Your task to perform on an android device: Go to CNN.com Image 0: 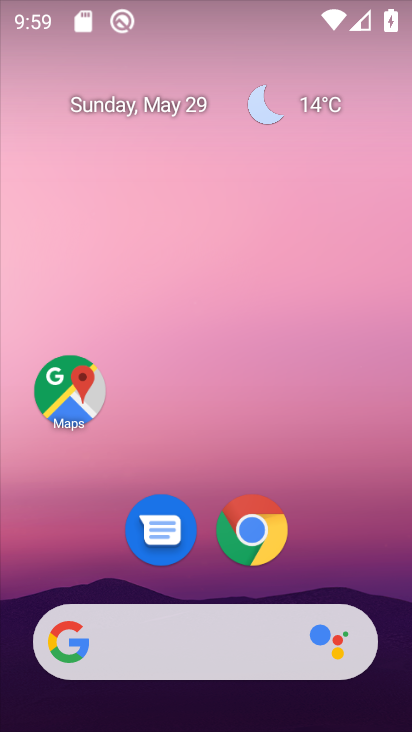
Step 0: click (234, 508)
Your task to perform on an android device: Go to CNN.com Image 1: 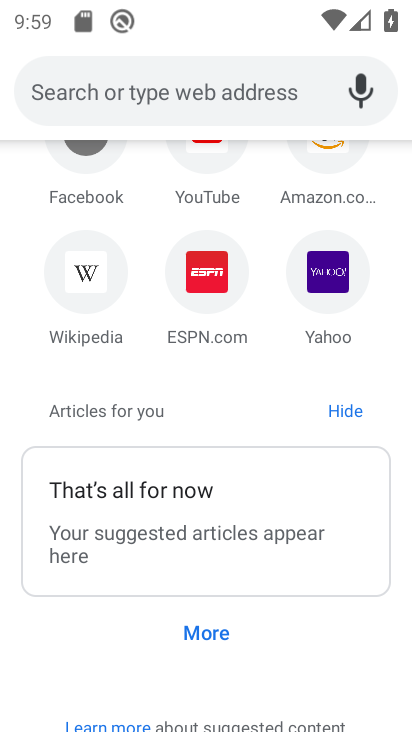
Step 1: click (224, 82)
Your task to perform on an android device: Go to CNN.com Image 2: 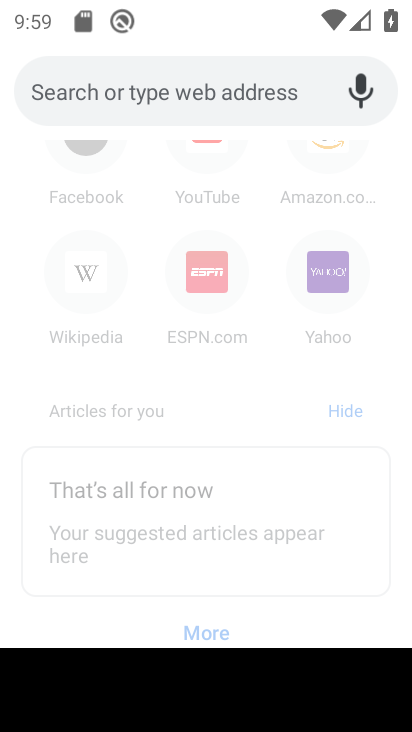
Step 2: type "cnn.com"
Your task to perform on an android device: Go to CNN.com Image 3: 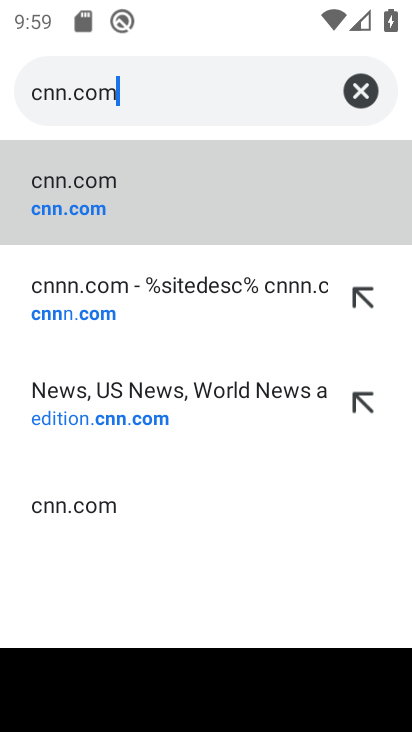
Step 3: click (101, 224)
Your task to perform on an android device: Go to CNN.com Image 4: 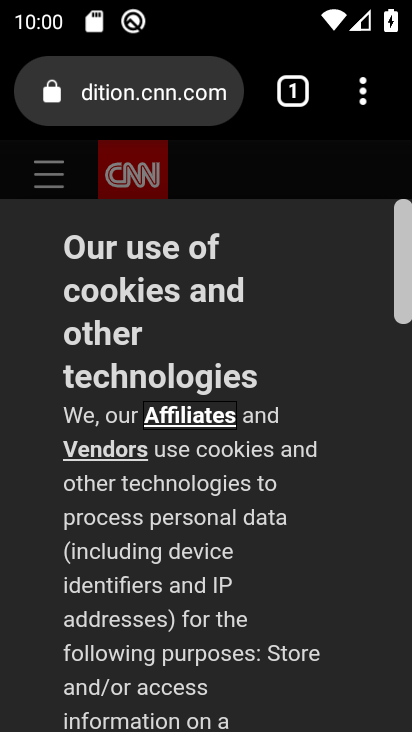
Step 4: task complete